Your task to perform on an android device: stop showing notifications on the lock screen Image 0: 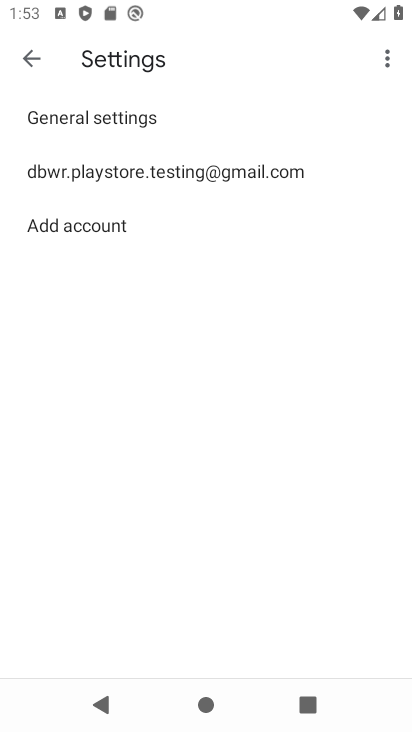
Step 0: press home button
Your task to perform on an android device: stop showing notifications on the lock screen Image 1: 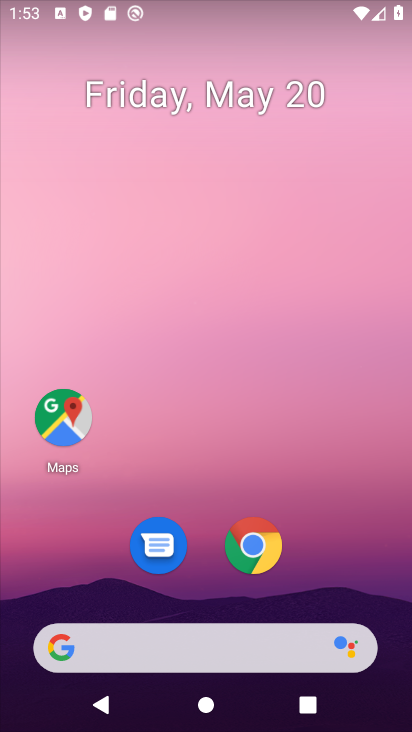
Step 1: drag from (300, 589) to (298, 8)
Your task to perform on an android device: stop showing notifications on the lock screen Image 2: 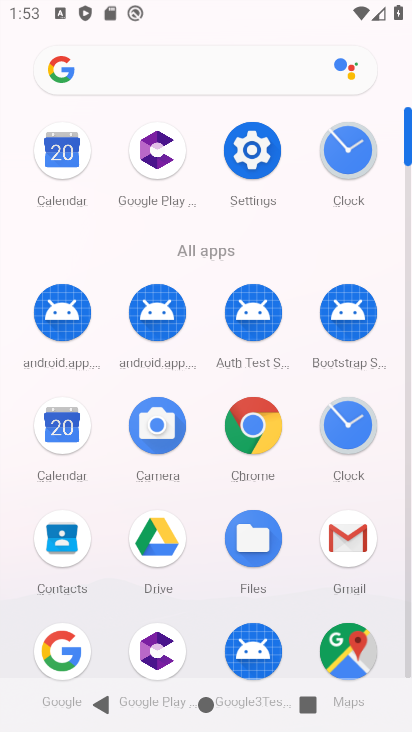
Step 2: click (256, 153)
Your task to perform on an android device: stop showing notifications on the lock screen Image 3: 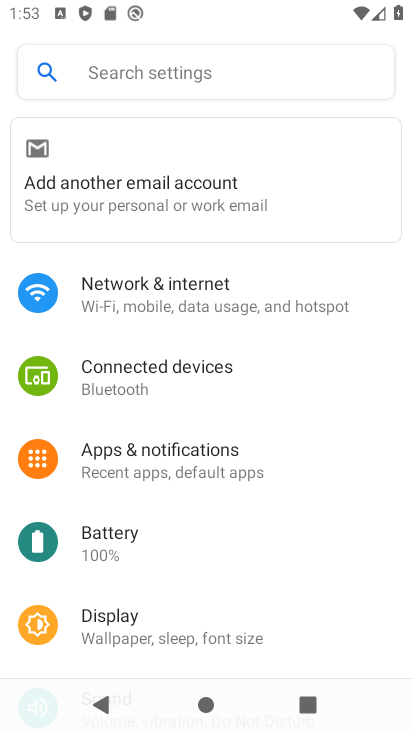
Step 3: click (190, 460)
Your task to perform on an android device: stop showing notifications on the lock screen Image 4: 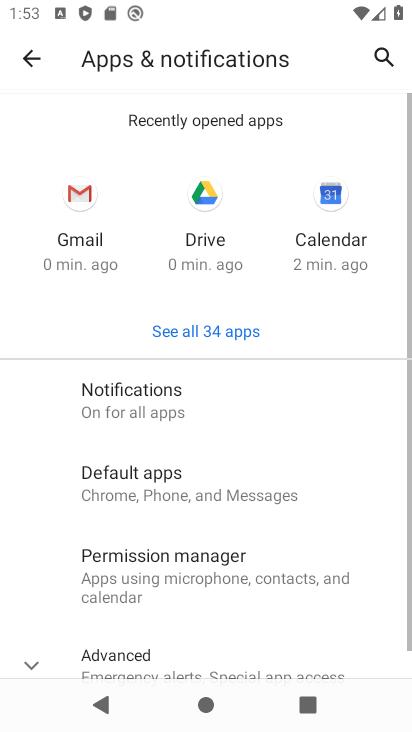
Step 4: drag from (255, 621) to (278, 401)
Your task to perform on an android device: stop showing notifications on the lock screen Image 5: 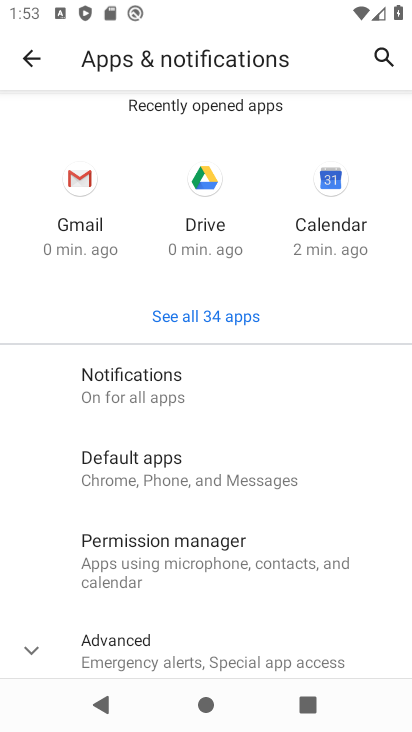
Step 5: click (199, 384)
Your task to perform on an android device: stop showing notifications on the lock screen Image 6: 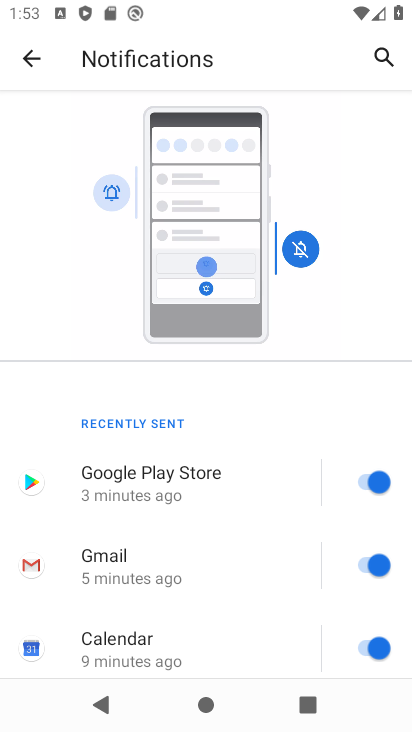
Step 6: drag from (278, 616) to (318, 57)
Your task to perform on an android device: stop showing notifications on the lock screen Image 7: 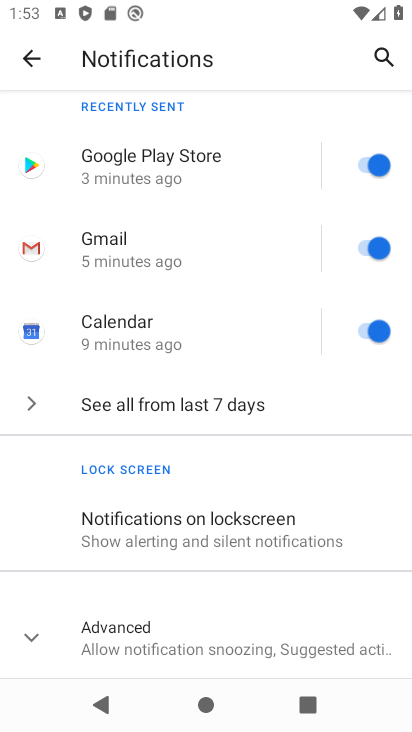
Step 7: click (207, 518)
Your task to perform on an android device: stop showing notifications on the lock screen Image 8: 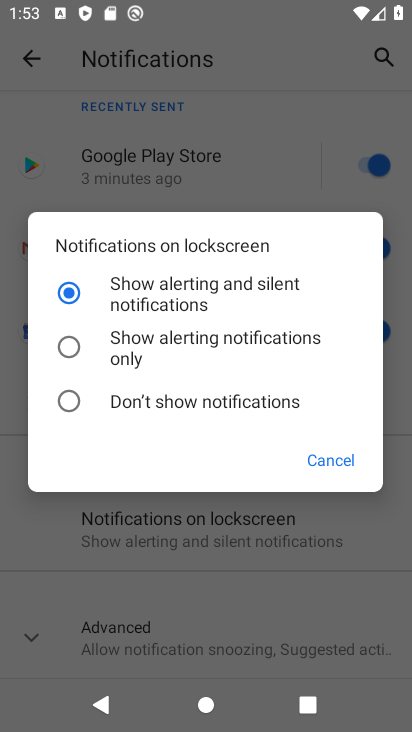
Step 8: click (69, 398)
Your task to perform on an android device: stop showing notifications on the lock screen Image 9: 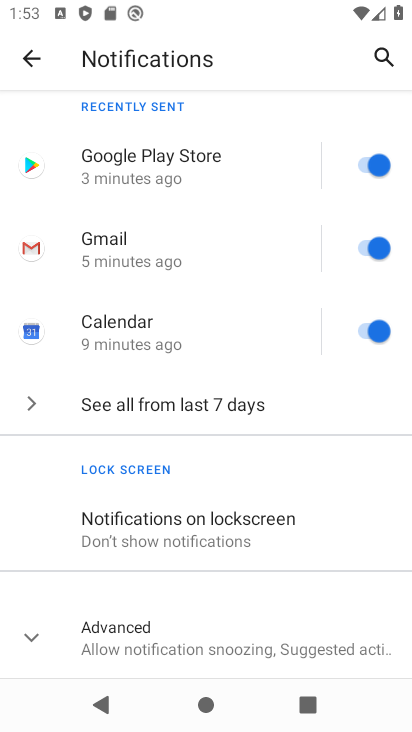
Step 9: task complete